Your task to perform on an android device: Open sound settings Image 0: 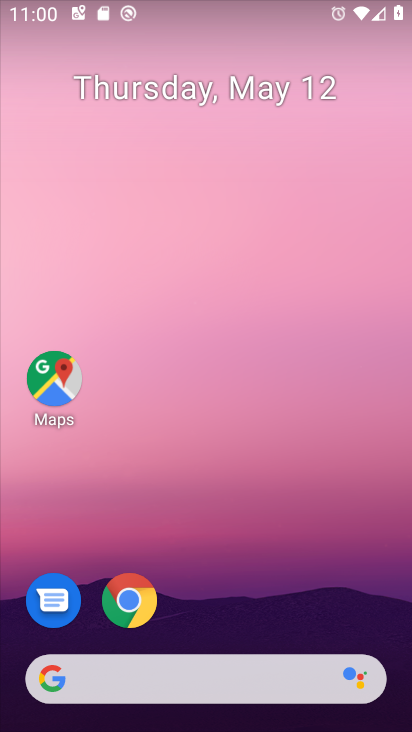
Step 0: drag from (186, 609) to (142, 144)
Your task to perform on an android device: Open sound settings Image 1: 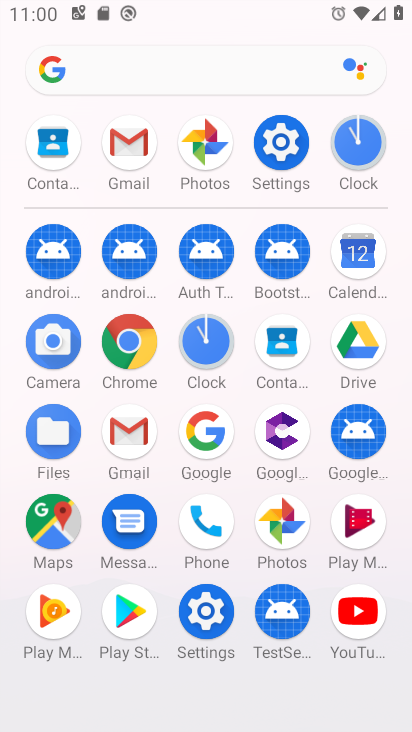
Step 1: click (198, 625)
Your task to perform on an android device: Open sound settings Image 2: 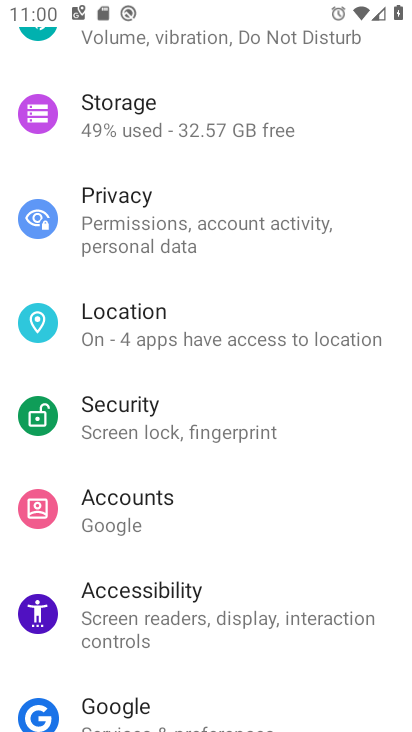
Step 2: drag from (191, 201) to (156, 627)
Your task to perform on an android device: Open sound settings Image 3: 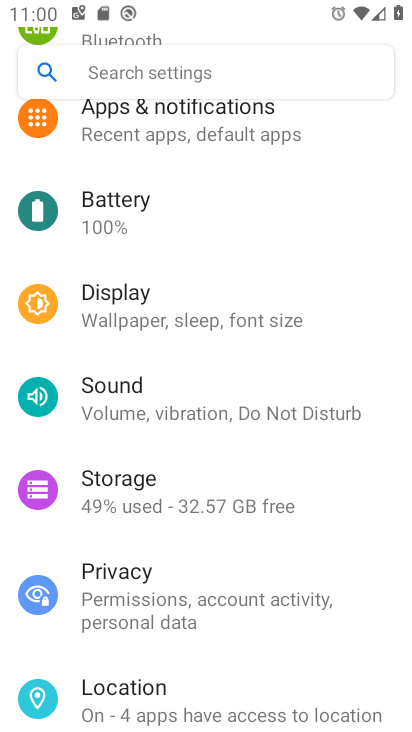
Step 3: click (157, 417)
Your task to perform on an android device: Open sound settings Image 4: 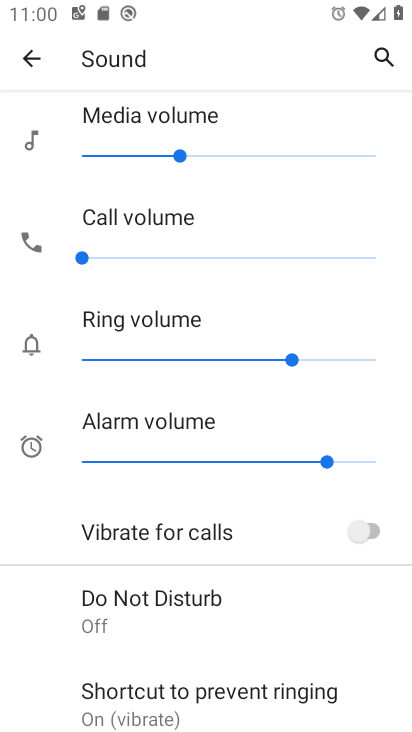
Step 4: task complete